Your task to perform on an android device: turn notification dots on Image 0: 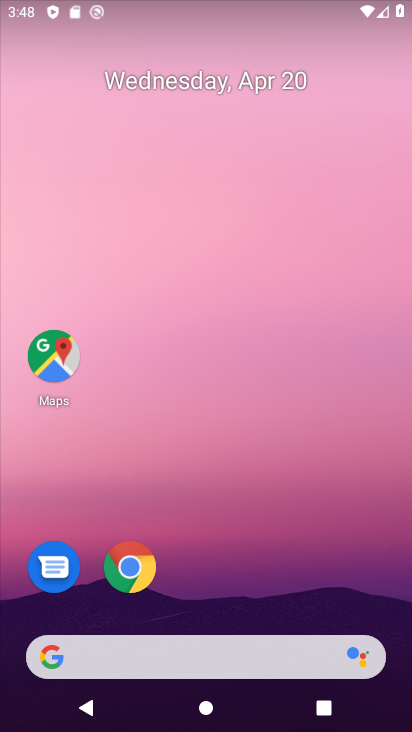
Step 0: drag from (304, 598) to (189, 220)
Your task to perform on an android device: turn notification dots on Image 1: 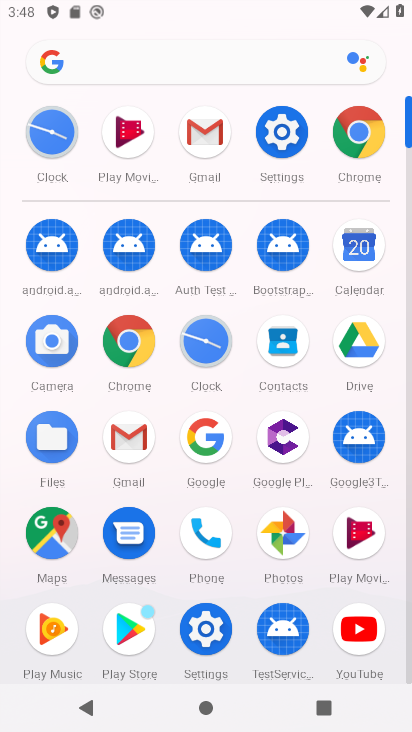
Step 1: click (286, 134)
Your task to perform on an android device: turn notification dots on Image 2: 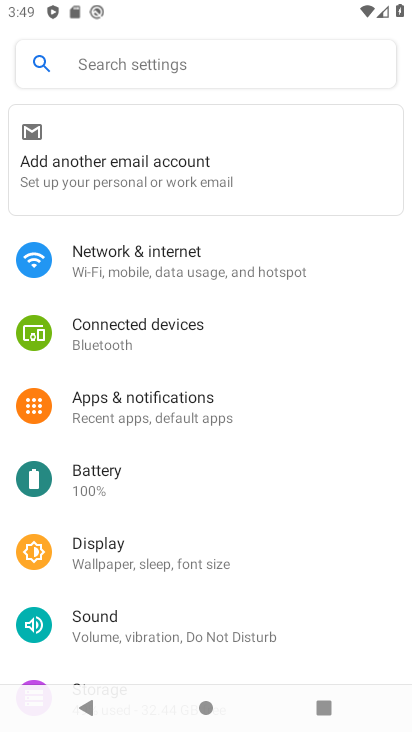
Step 2: click (266, 402)
Your task to perform on an android device: turn notification dots on Image 3: 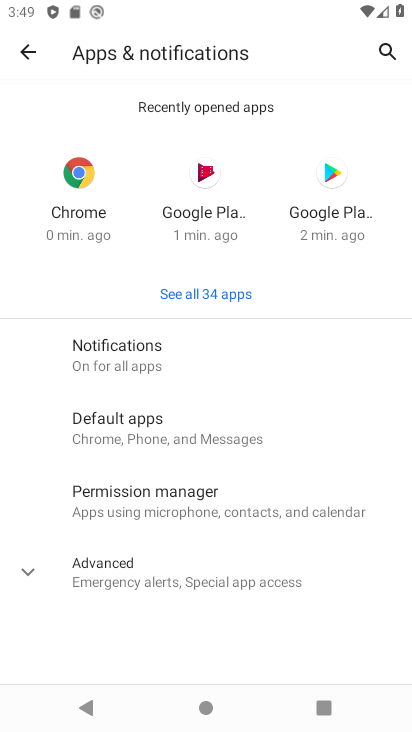
Step 3: click (273, 368)
Your task to perform on an android device: turn notification dots on Image 4: 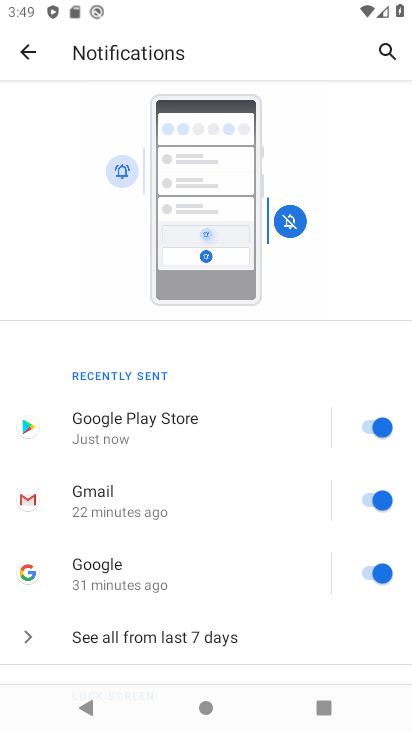
Step 4: drag from (275, 640) to (173, 164)
Your task to perform on an android device: turn notification dots on Image 5: 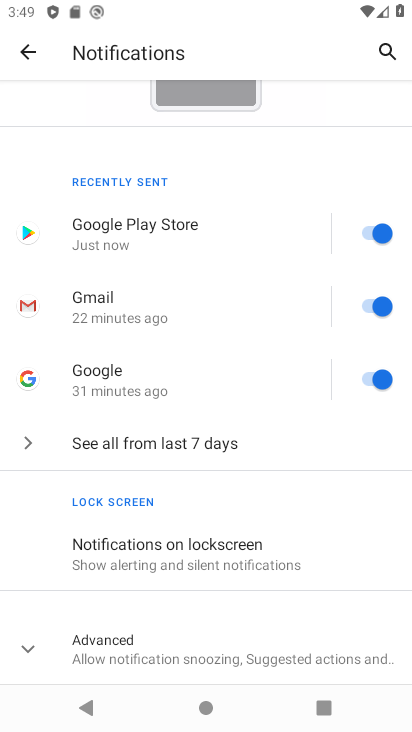
Step 5: click (293, 654)
Your task to perform on an android device: turn notification dots on Image 6: 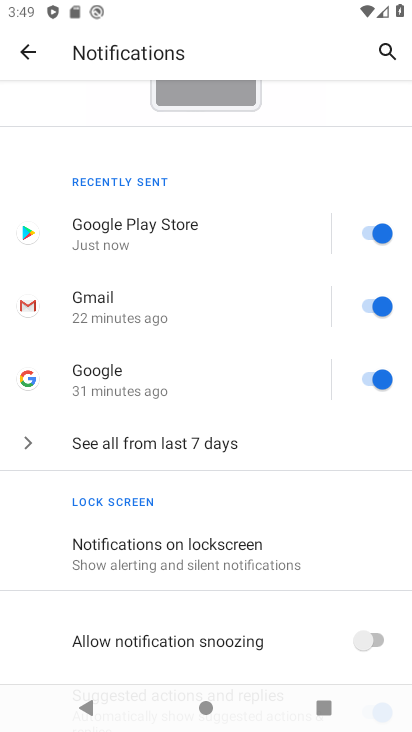
Step 6: task complete